Your task to perform on an android device: turn on wifi Image 0: 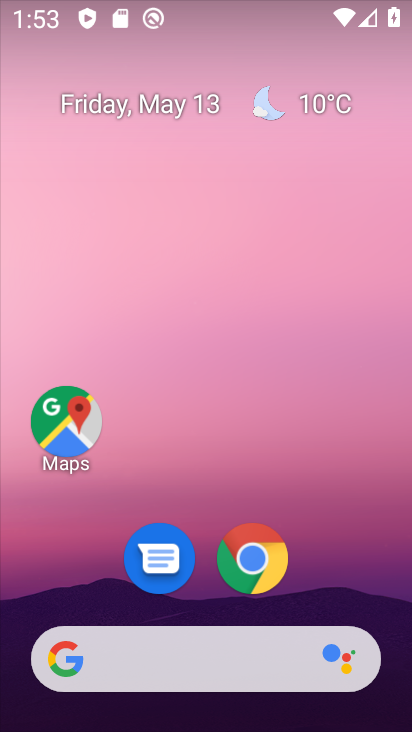
Step 0: drag from (196, 587) to (203, 160)
Your task to perform on an android device: turn on wifi Image 1: 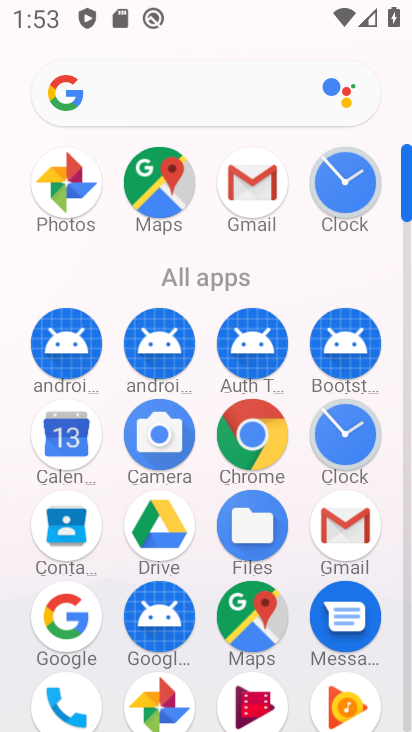
Step 1: drag from (196, 511) to (189, 208)
Your task to perform on an android device: turn on wifi Image 2: 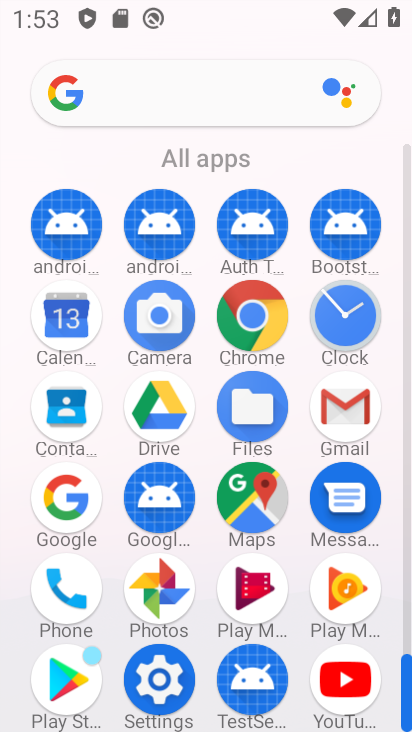
Step 2: click (154, 685)
Your task to perform on an android device: turn on wifi Image 3: 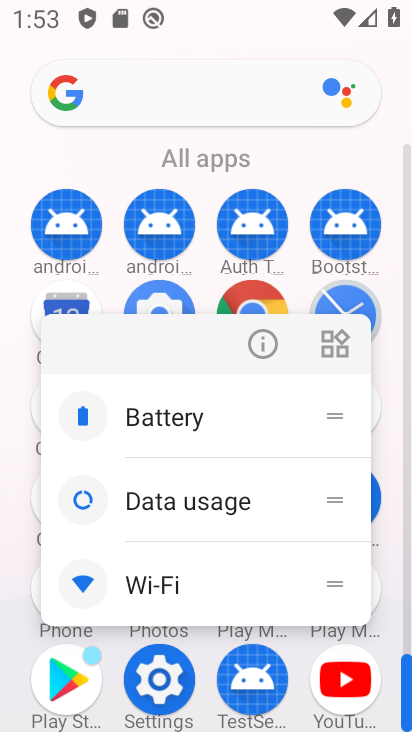
Step 3: click (167, 662)
Your task to perform on an android device: turn on wifi Image 4: 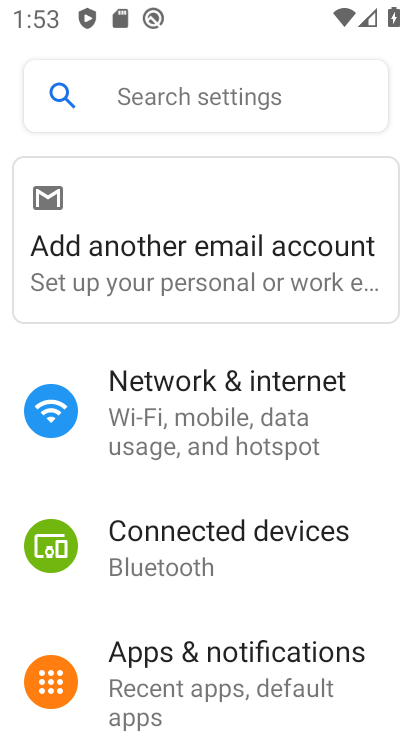
Step 4: click (202, 387)
Your task to perform on an android device: turn on wifi Image 5: 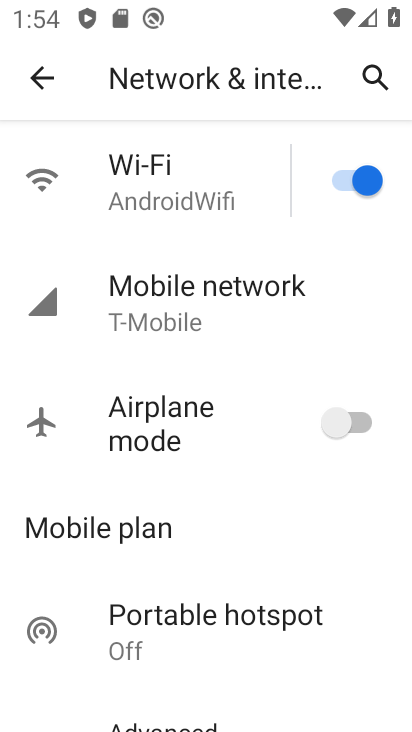
Step 5: task complete